Your task to perform on an android device: Open Google Chrome and open the bookmarks view Image 0: 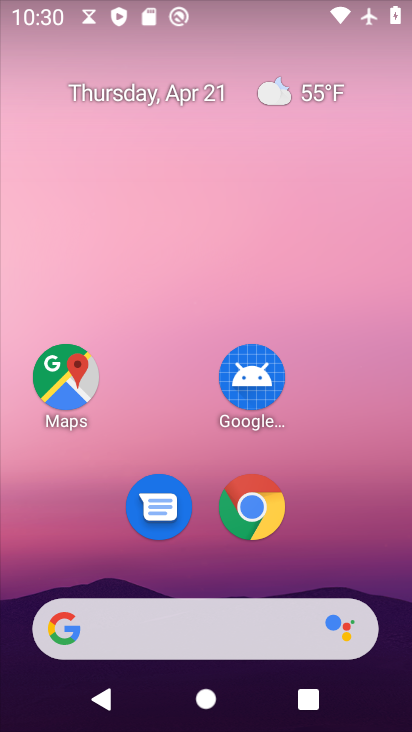
Step 0: drag from (334, 399) to (330, 219)
Your task to perform on an android device: Open Google Chrome and open the bookmarks view Image 1: 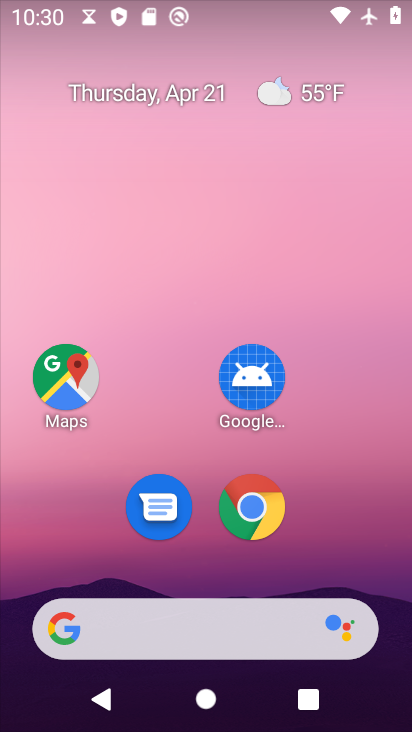
Step 1: drag from (345, 460) to (342, 159)
Your task to perform on an android device: Open Google Chrome and open the bookmarks view Image 2: 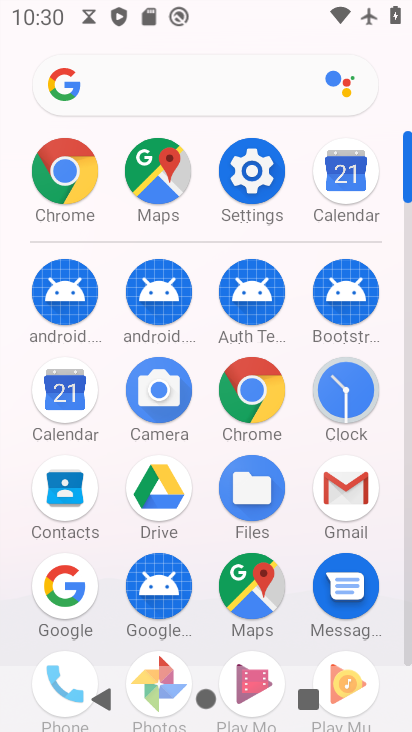
Step 2: click (255, 385)
Your task to perform on an android device: Open Google Chrome and open the bookmarks view Image 3: 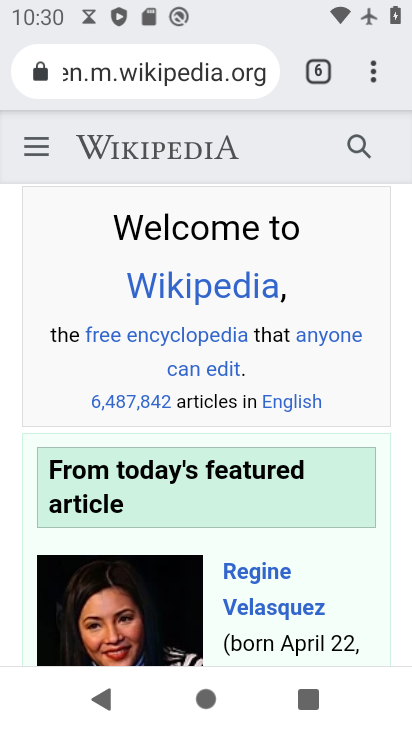
Step 3: click (360, 71)
Your task to perform on an android device: Open Google Chrome and open the bookmarks view Image 4: 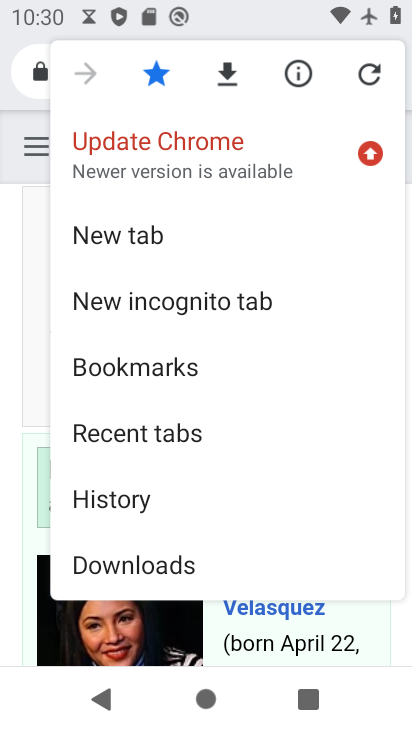
Step 4: drag from (251, 536) to (312, 197)
Your task to perform on an android device: Open Google Chrome and open the bookmarks view Image 5: 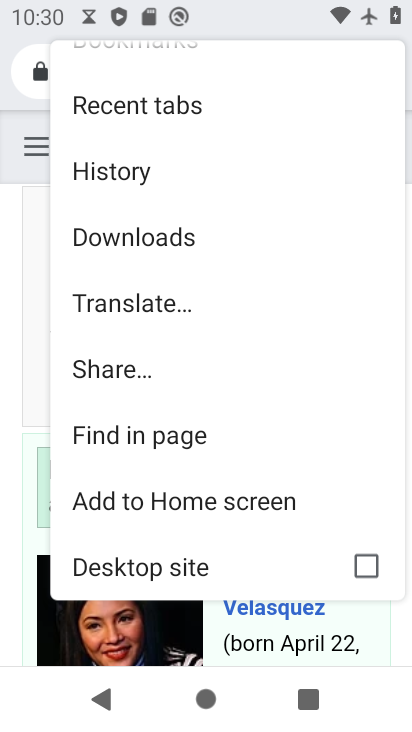
Step 5: drag from (159, 548) to (282, 172)
Your task to perform on an android device: Open Google Chrome and open the bookmarks view Image 6: 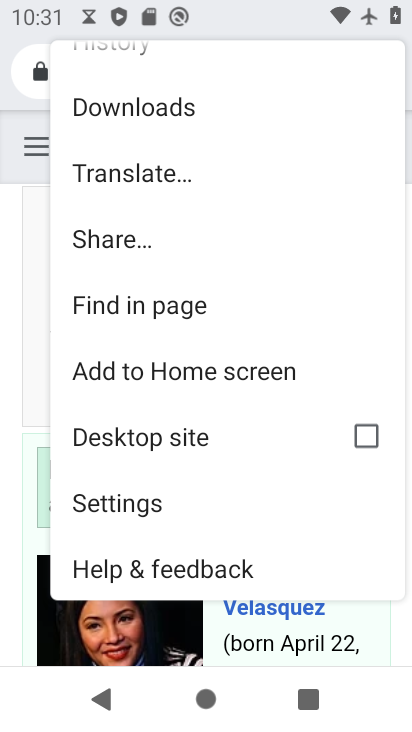
Step 6: click (139, 499)
Your task to perform on an android device: Open Google Chrome and open the bookmarks view Image 7: 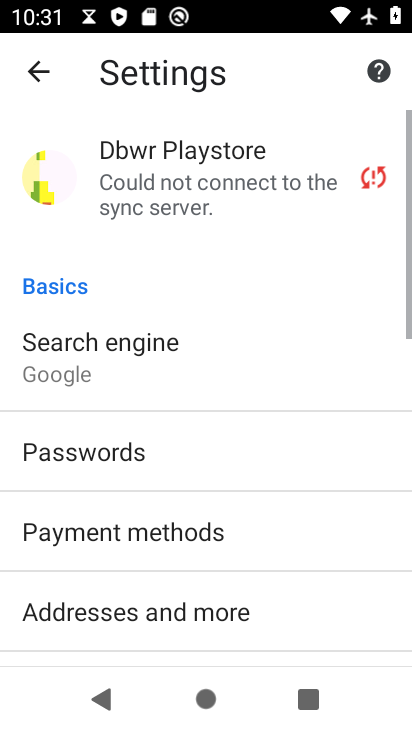
Step 7: click (53, 65)
Your task to perform on an android device: Open Google Chrome and open the bookmarks view Image 8: 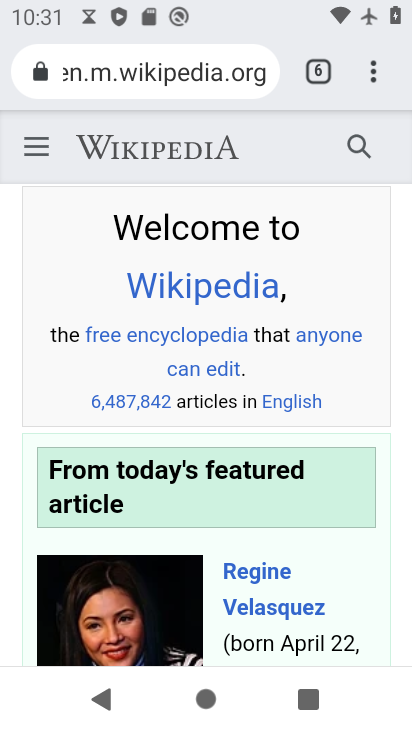
Step 8: click (351, 64)
Your task to perform on an android device: Open Google Chrome and open the bookmarks view Image 9: 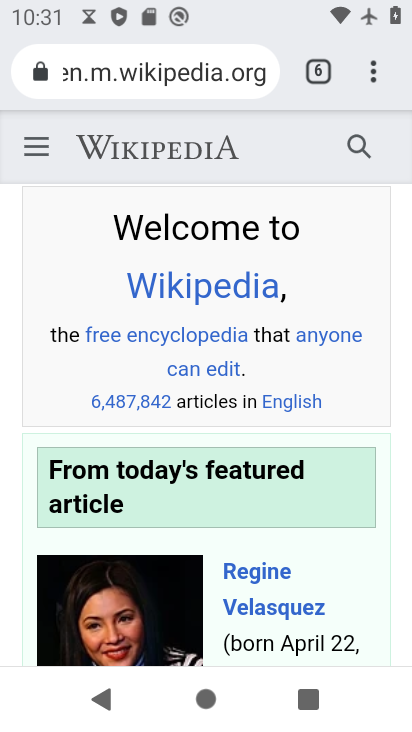
Step 9: click (359, 71)
Your task to perform on an android device: Open Google Chrome and open the bookmarks view Image 10: 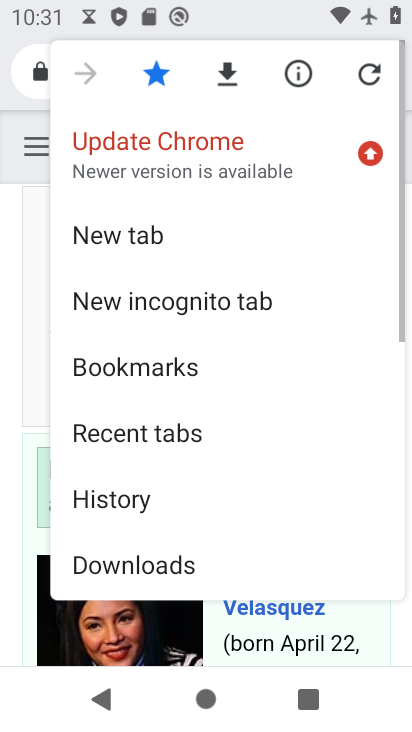
Step 10: drag from (257, 446) to (259, 348)
Your task to perform on an android device: Open Google Chrome and open the bookmarks view Image 11: 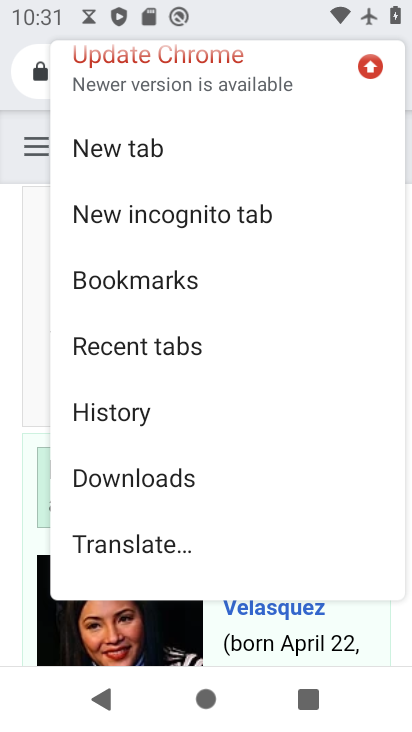
Step 11: click (229, 279)
Your task to perform on an android device: Open Google Chrome and open the bookmarks view Image 12: 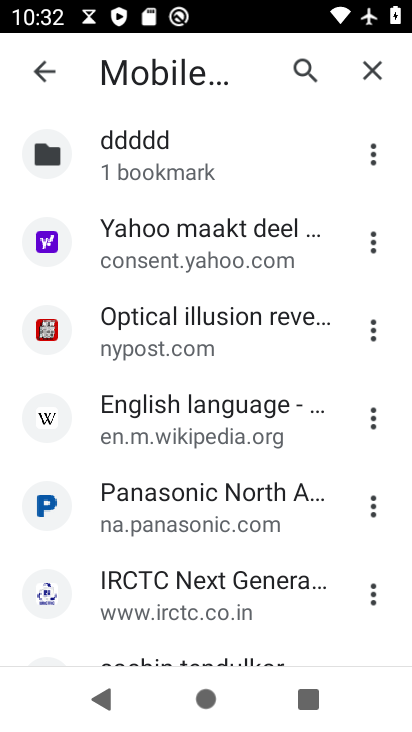
Step 12: task complete